Your task to perform on an android device: Do I have any events this weekend? Image 0: 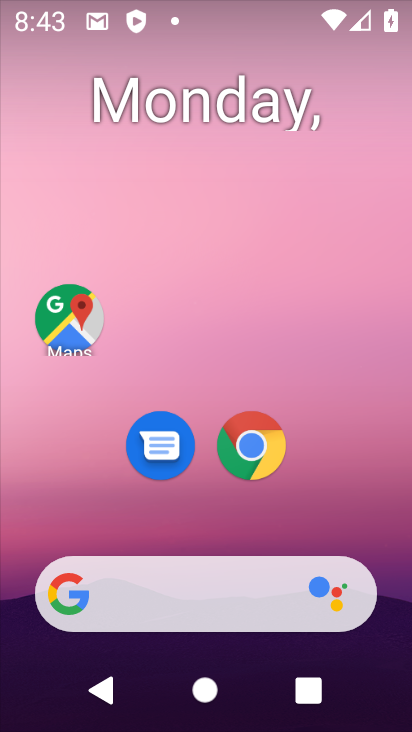
Step 0: drag from (239, 648) to (283, 67)
Your task to perform on an android device: Do I have any events this weekend? Image 1: 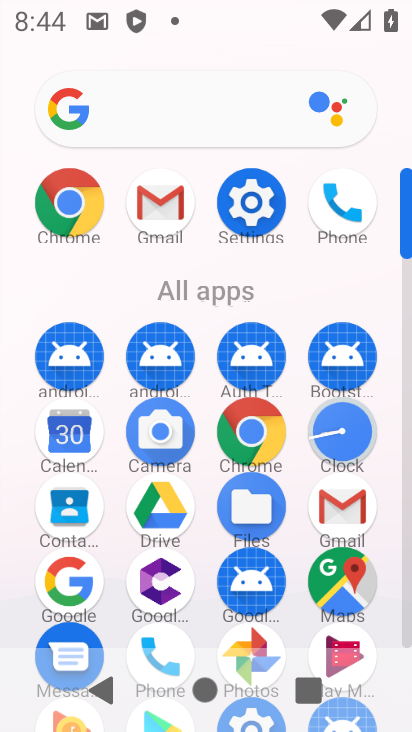
Step 1: click (78, 437)
Your task to perform on an android device: Do I have any events this weekend? Image 2: 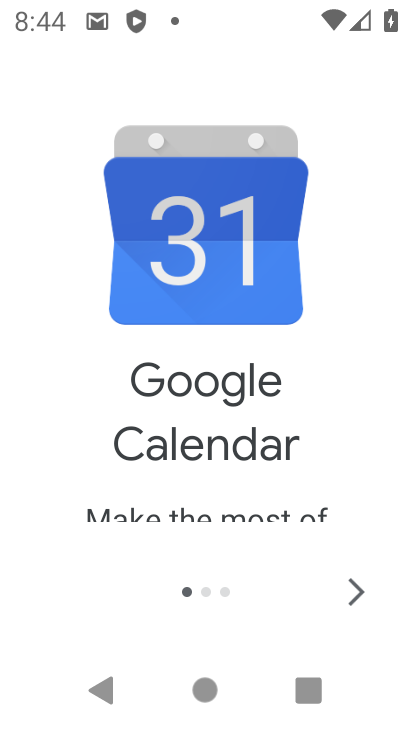
Step 2: click (343, 594)
Your task to perform on an android device: Do I have any events this weekend? Image 3: 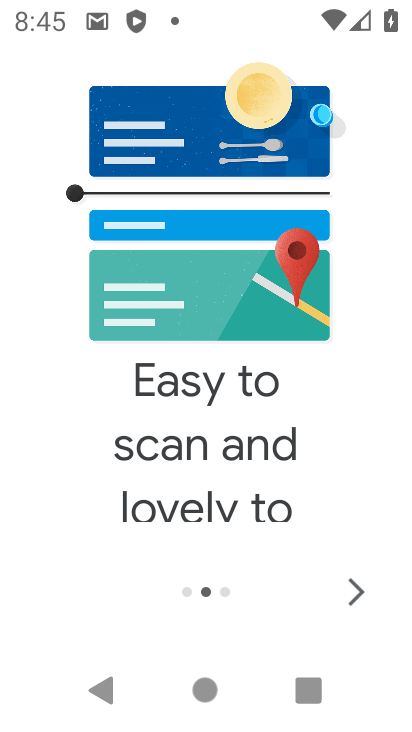
Step 3: click (361, 597)
Your task to perform on an android device: Do I have any events this weekend? Image 4: 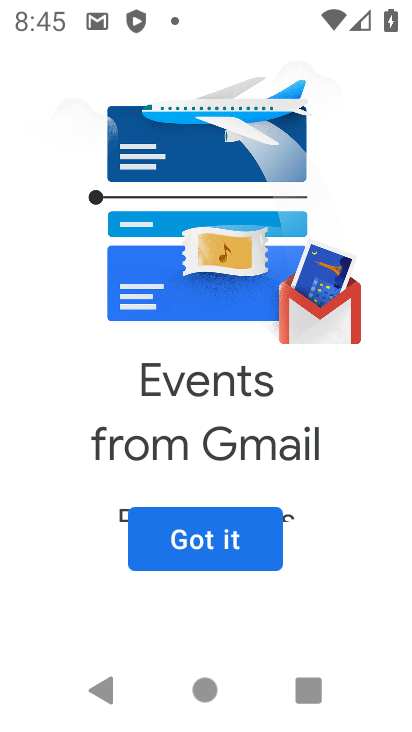
Step 4: click (230, 537)
Your task to perform on an android device: Do I have any events this weekend? Image 5: 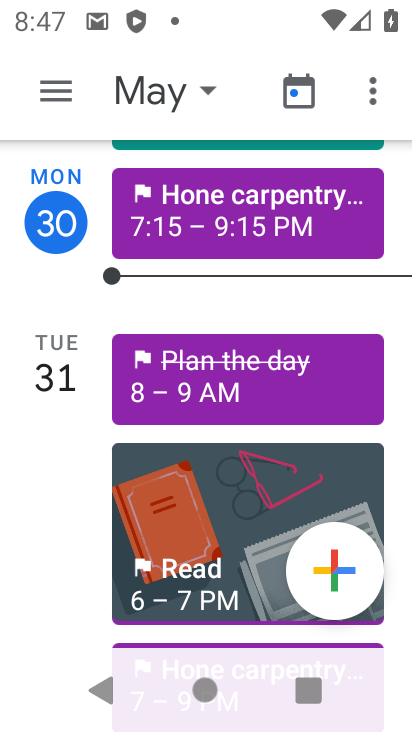
Step 5: click (158, 89)
Your task to perform on an android device: Do I have any events this weekend? Image 6: 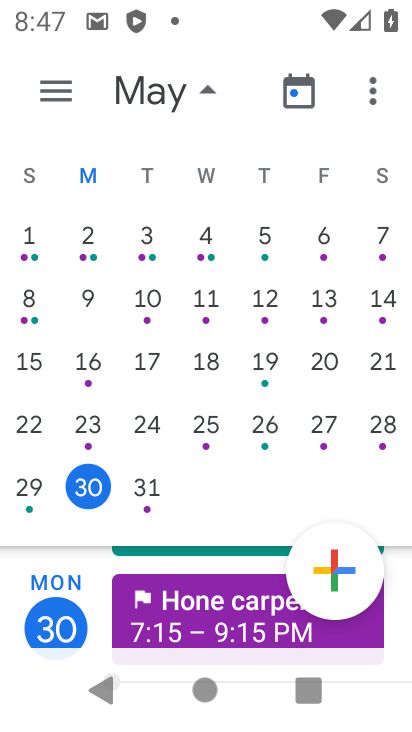
Step 6: drag from (339, 472) to (150, 409)
Your task to perform on an android device: Do I have any events this weekend? Image 7: 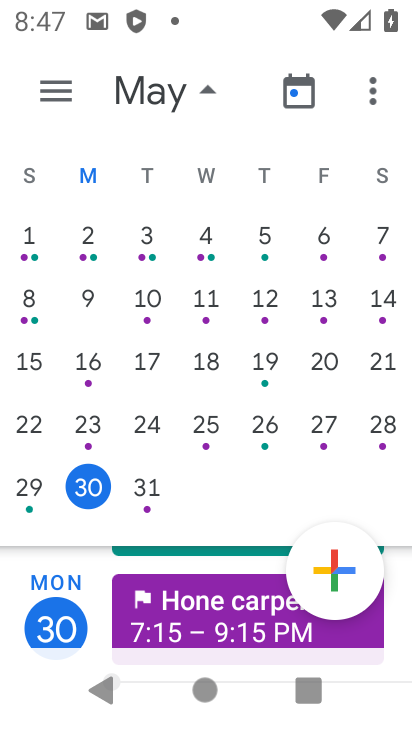
Step 7: drag from (288, 379) to (44, 376)
Your task to perform on an android device: Do I have any events this weekend? Image 8: 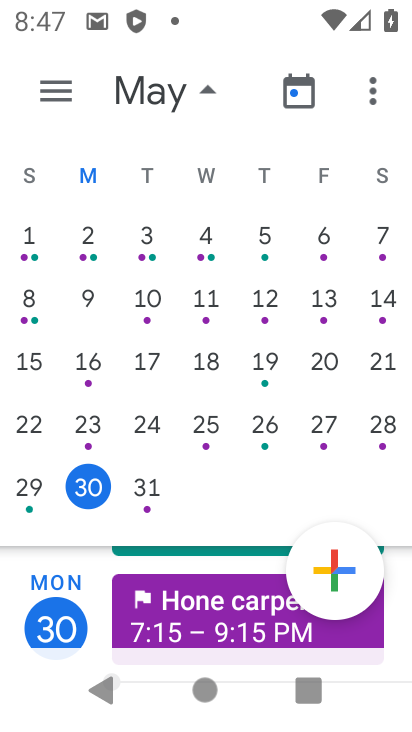
Step 8: click (28, 235)
Your task to perform on an android device: Do I have any events this weekend? Image 9: 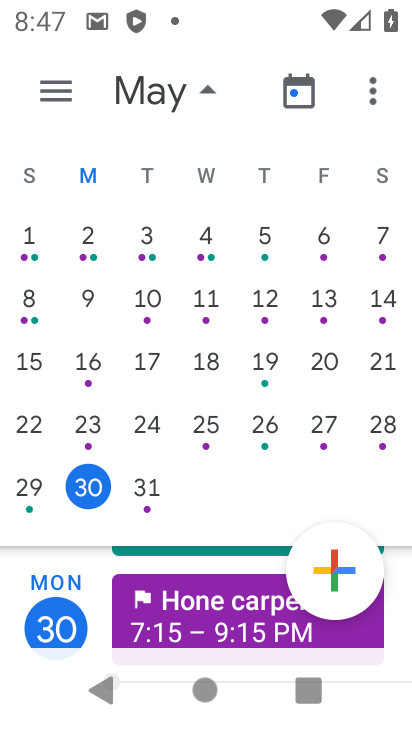
Step 9: click (28, 235)
Your task to perform on an android device: Do I have any events this weekend? Image 10: 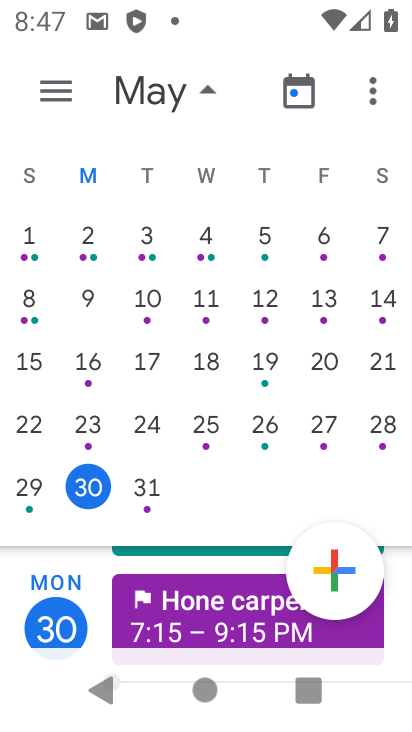
Step 10: click (33, 243)
Your task to perform on an android device: Do I have any events this weekend? Image 11: 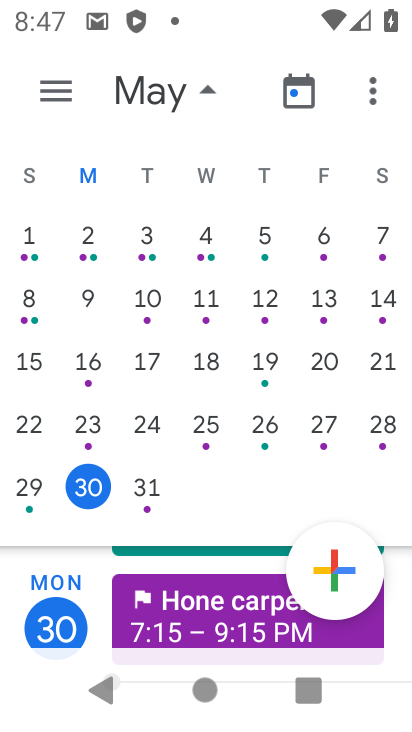
Step 11: click (21, 249)
Your task to perform on an android device: Do I have any events this weekend? Image 12: 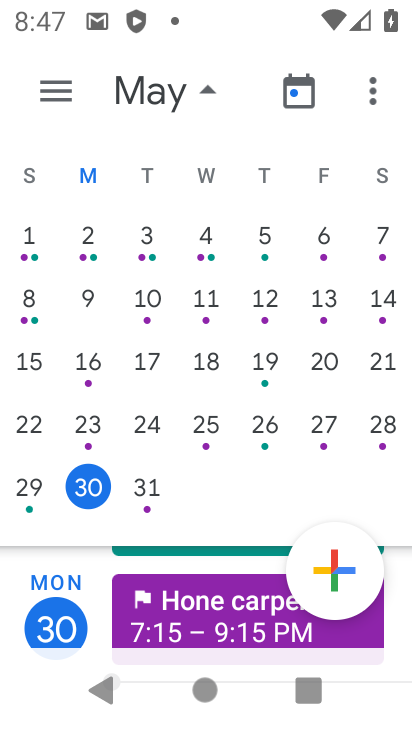
Step 12: click (38, 240)
Your task to perform on an android device: Do I have any events this weekend? Image 13: 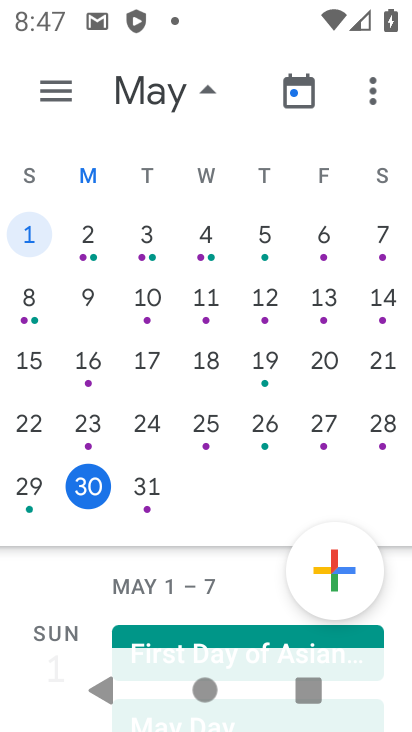
Step 13: task complete